Your task to perform on an android device: Go to Yahoo.com Image 0: 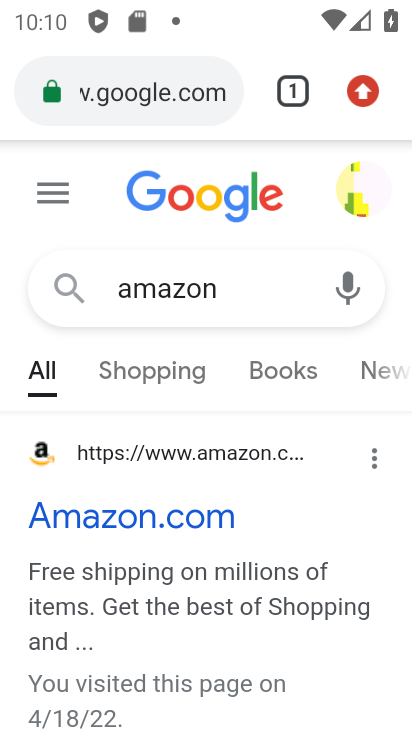
Step 0: task complete